Your task to perform on an android device: move an email to a new category in the gmail app Image 0: 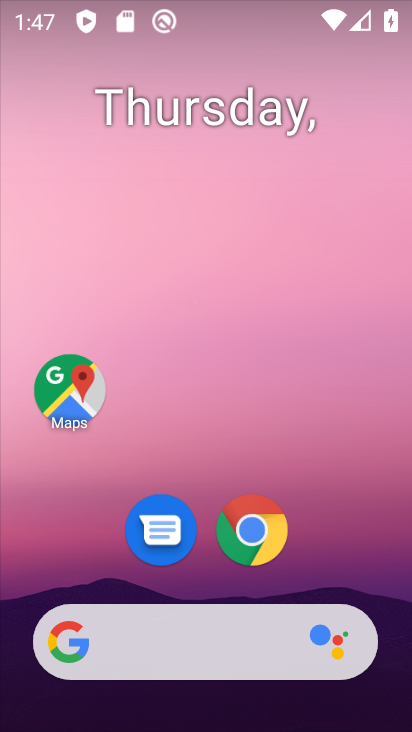
Step 0: drag from (157, 610) to (138, 47)
Your task to perform on an android device: move an email to a new category in the gmail app Image 1: 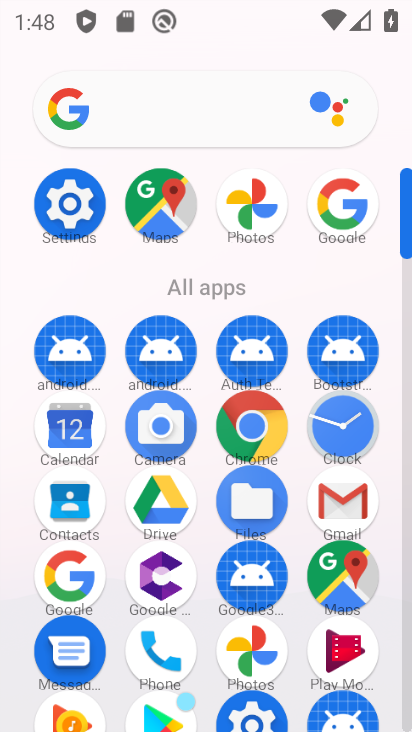
Step 1: click (337, 489)
Your task to perform on an android device: move an email to a new category in the gmail app Image 2: 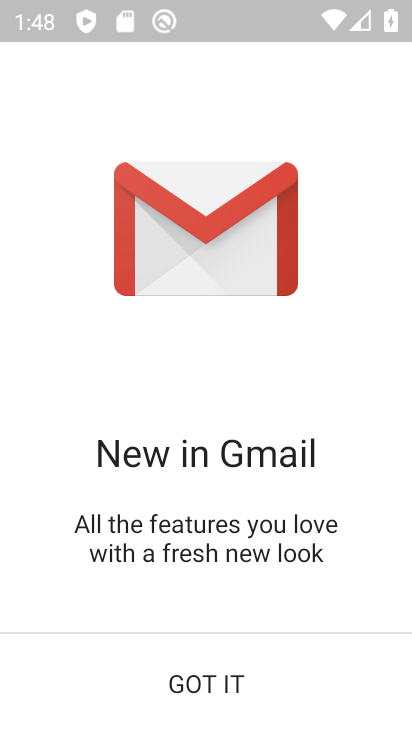
Step 2: click (208, 675)
Your task to perform on an android device: move an email to a new category in the gmail app Image 3: 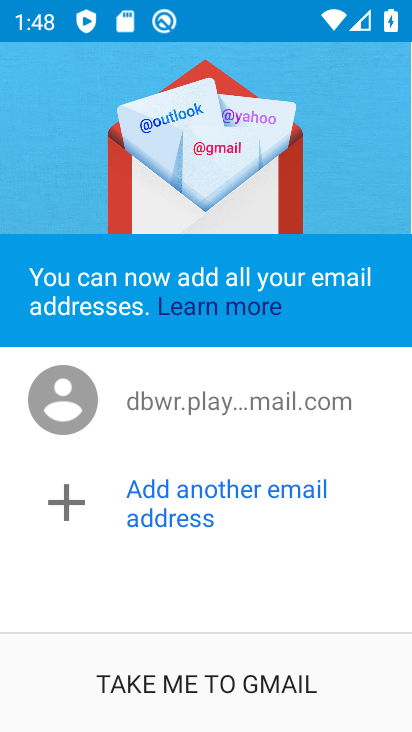
Step 3: click (217, 693)
Your task to perform on an android device: move an email to a new category in the gmail app Image 4: 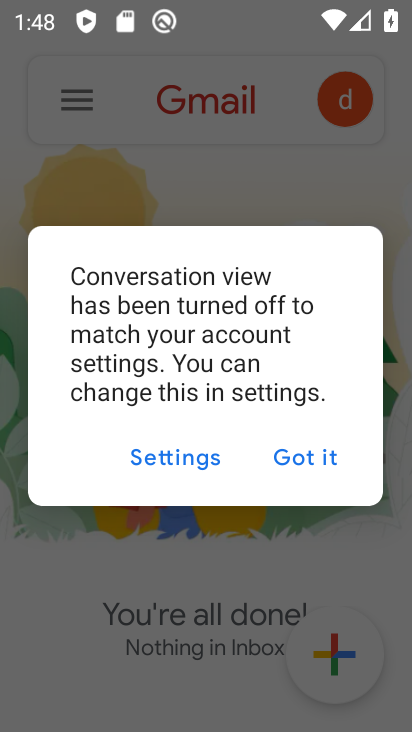
Step 4: click (295, 449)
Your task to perform on an android device: move an email to a new category in the gmail app Image 5: 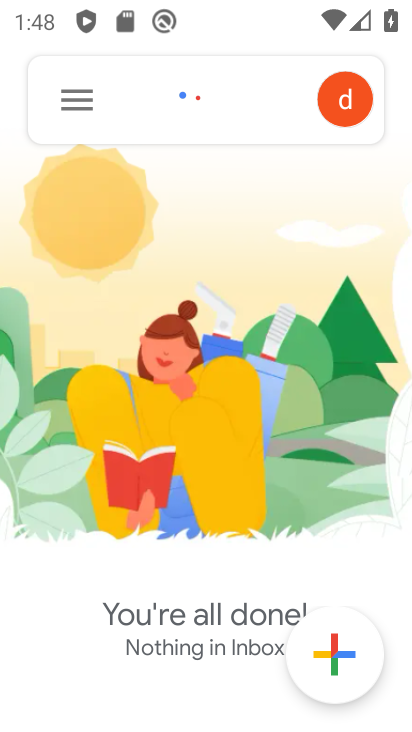
Step 5: task complete